Your task to perform on an android device: Open Google Image 0: 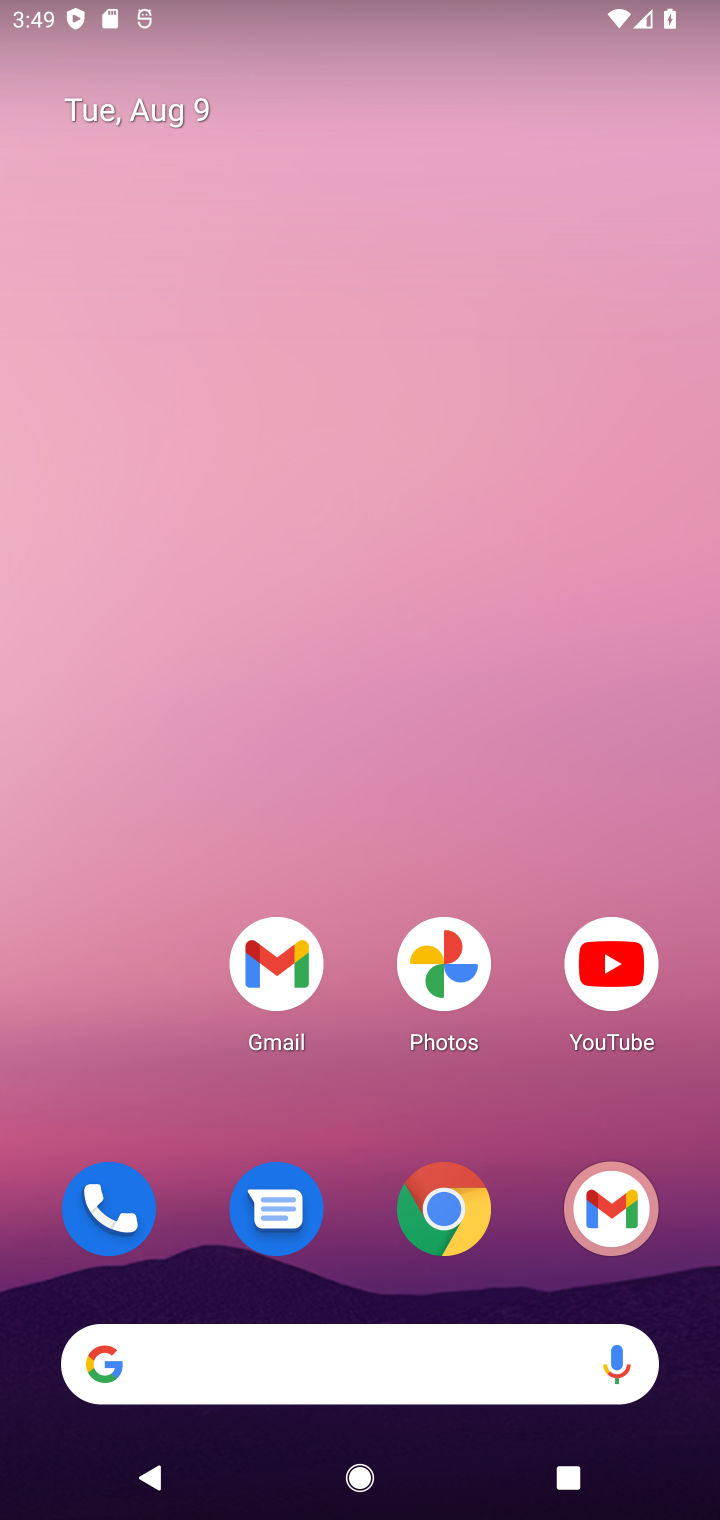
Step 0: drag from (364, 1276) to (265, 345)
Your task to perform on an android device: Open Google Image 1: 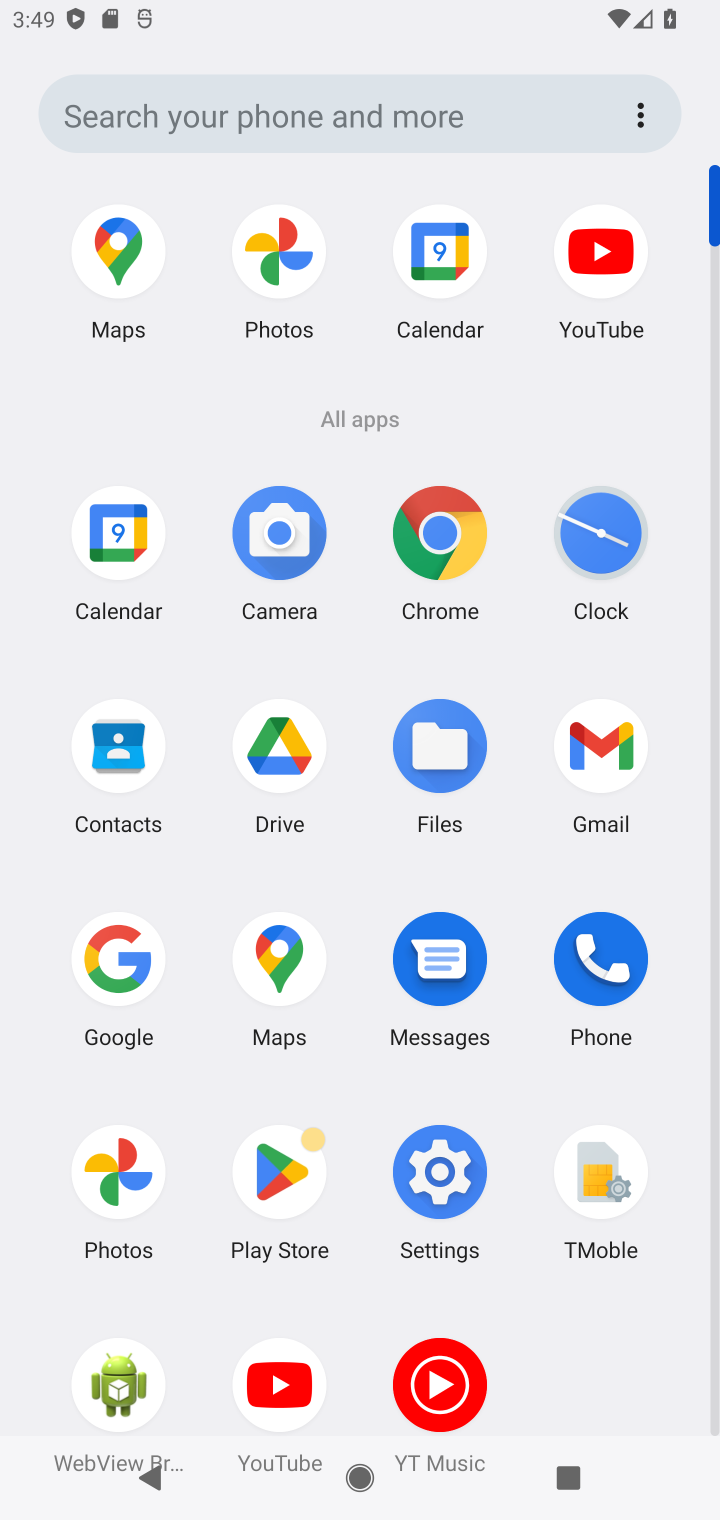
Step 1: click (111, 961)
Your task to perform on an android device: Open Google Image 2: 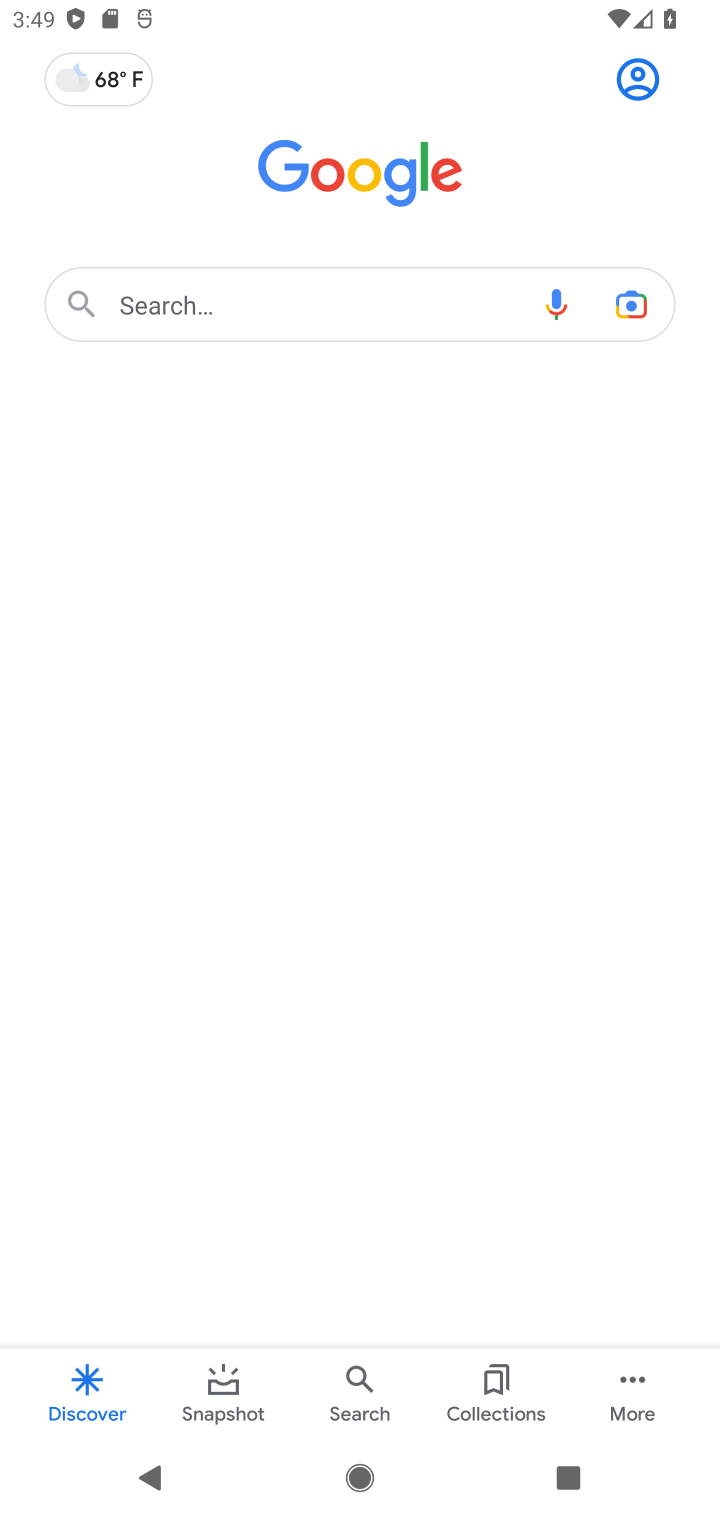
Step 2: task complete